Your task to perform on an android device: What's the weather going to be tomorrow? Image 0: 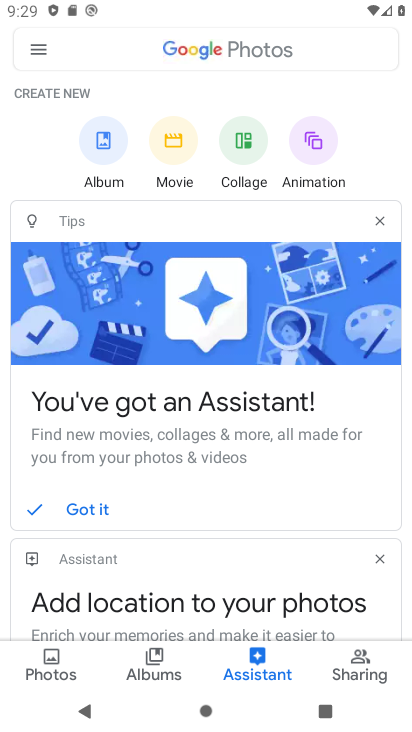
Step 0: press home button
Your task to perform on an android device: What's the weather going to be tomorrow? Image 1: 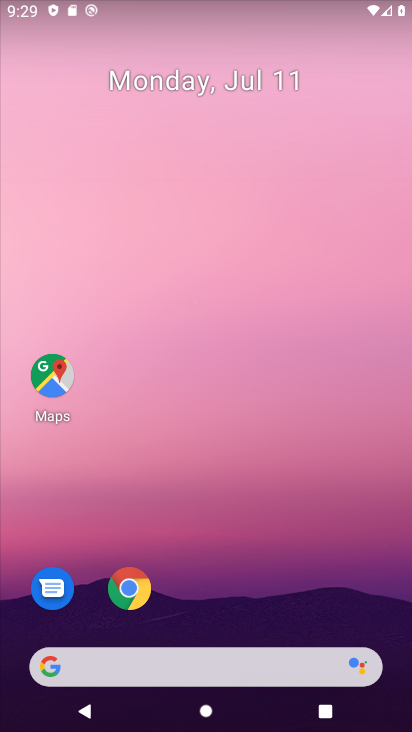
Step 1: click (205, 661)
Your task to perform on an android device: What's the weather going to be tomorrow? Image 2: 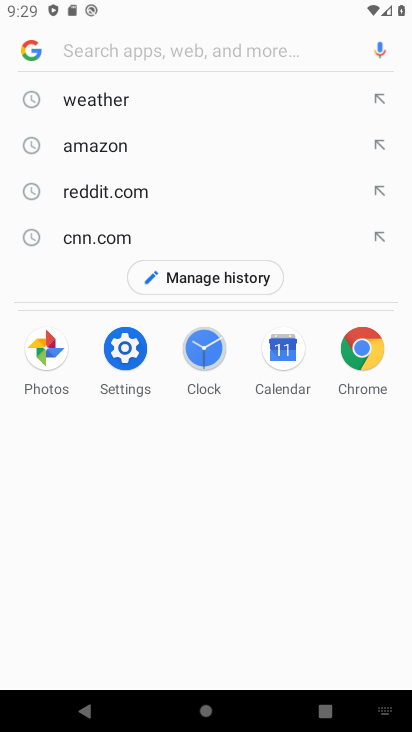
Step 2: type "what's the weather going to be tomorrow?"
Your task to perform on an android device: What's the weather going to be tomorrow? Image 3: 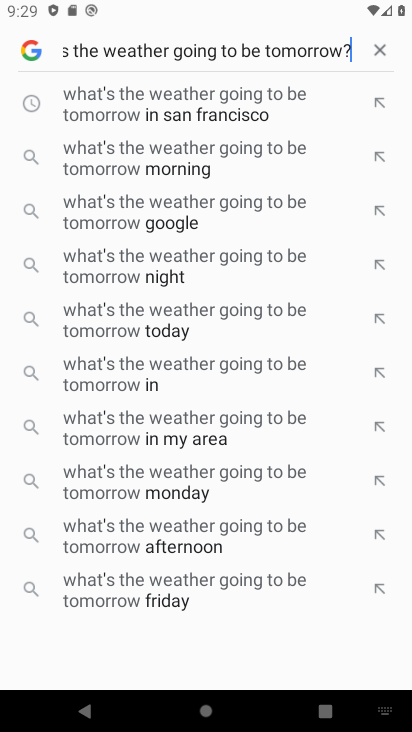
Step 3: click (222, 208)
Your task to perform on an android device: What's the weather going to be tomorrow? Image 4: 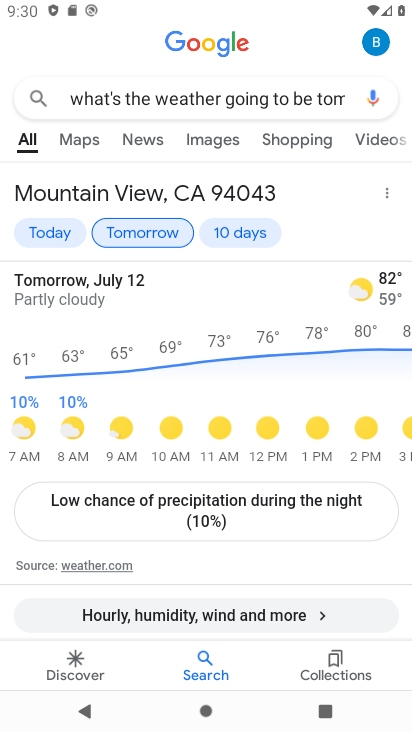
Step 4: task complete